Your task to perform on an android device: Open internet settings Image 0: 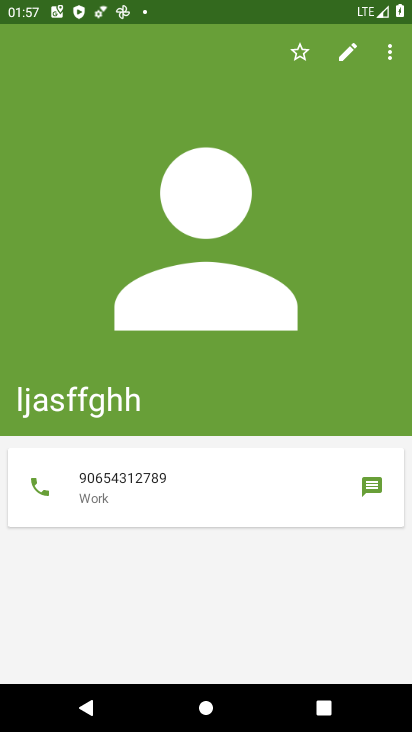
Step 0: press home button
Your task to perform on an android device: Open internet settings Image 1: 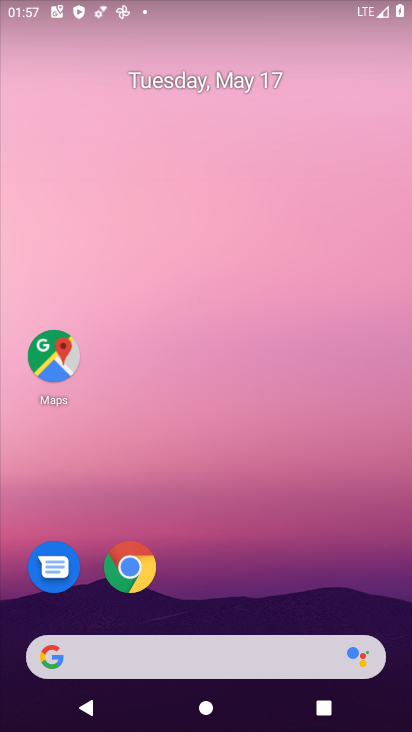
Step 1: drag from (394, 639) to (349, 89)
Your task to perform on an android device: Open internet settings Image 2: 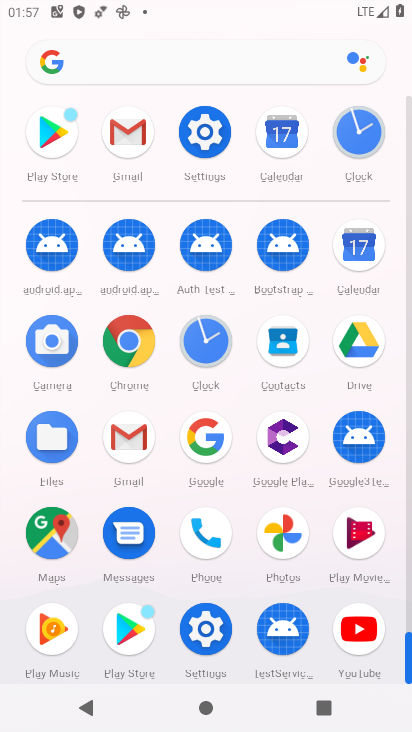
Step 2: click (204, 634)
Your task to perform on an android device: Open internet settings Image 3: 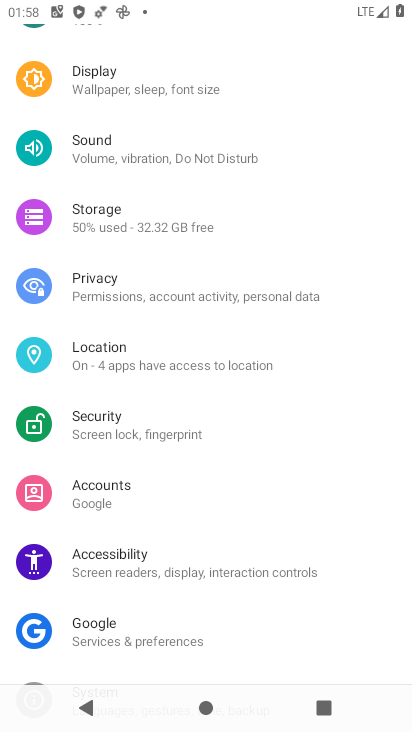
Step 3: drag from (338, 128) to (324, 479)
Your task to perform on an android device: Open internet settings Image 4: 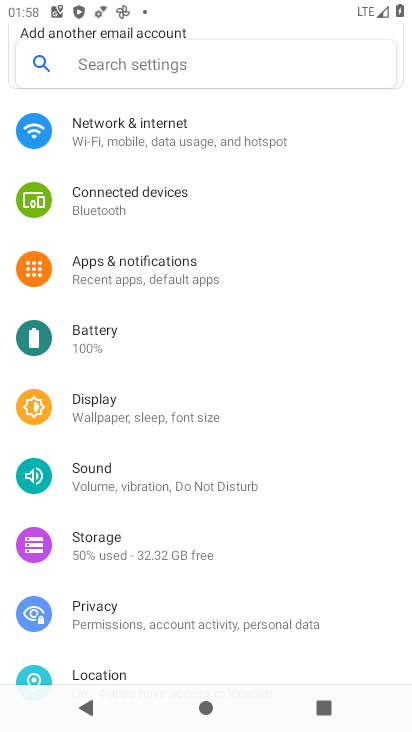
Step 4: drag from (357, 238) to (331, 525)
Your task to perform on an android device: Open internet settings Image 5: 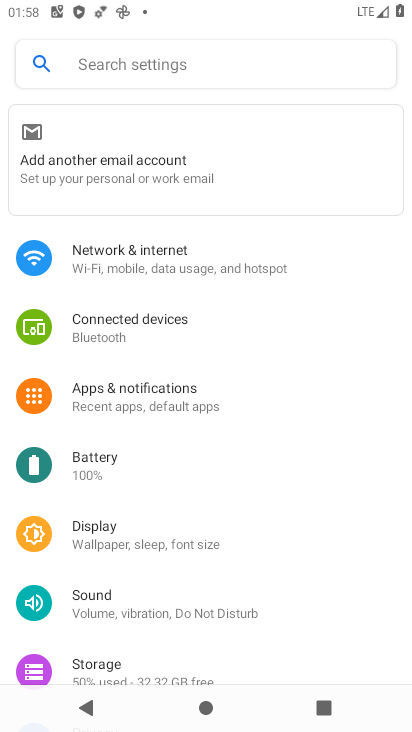
Step 5: click (104, 243)
Your task to perform on an android device: Open internet settings Image 6: 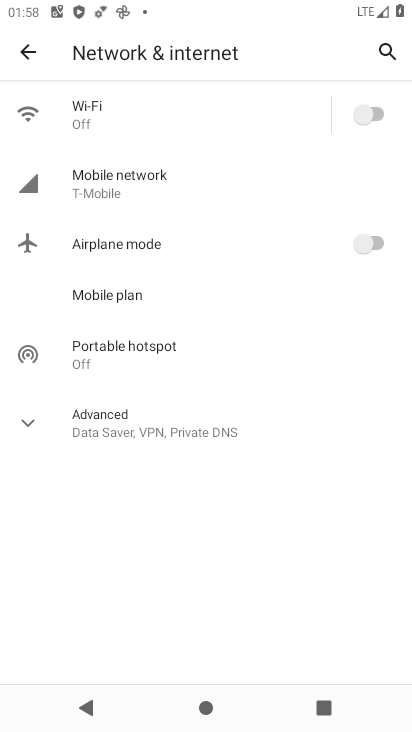
Step 6: click (79, 175)
Your task to perform on an android device: Open internet settings Image 7: 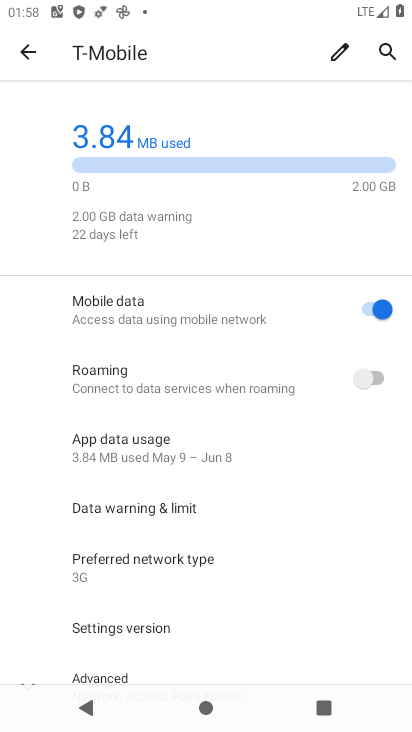
Step 7: task complete